Your task to perform on an android device: read, delete, or share a saved page in the chrome app Image 0: 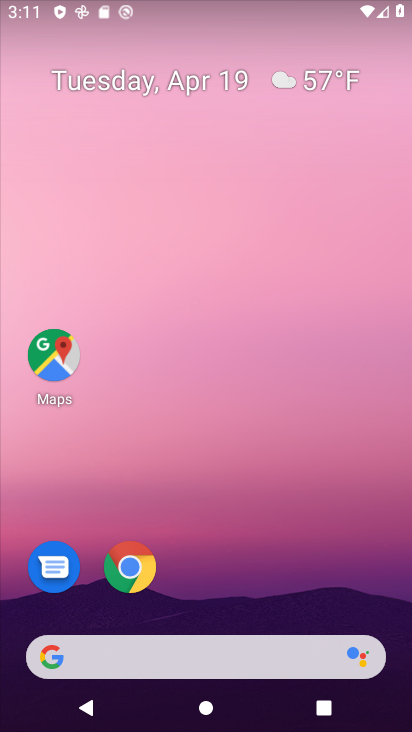
Step 0: drag from (356, 587) to (381, 122)
Your task to perform on an android device: read, delete, or share a saved page in the chrome app Image 1: 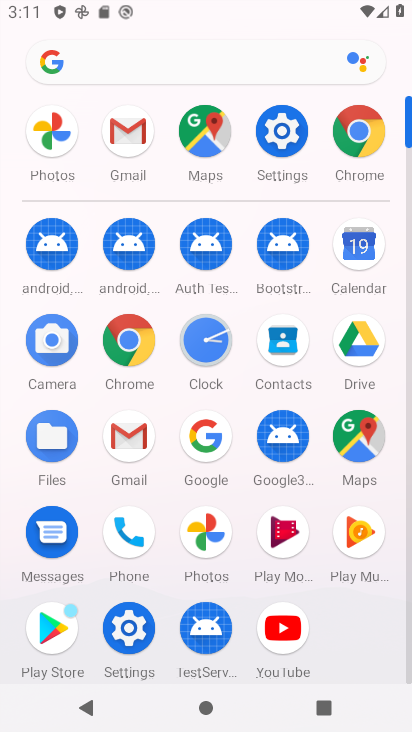
Step 1: click (353, 135)
Your task to perform on an android device: read, delete, or share a saved page in the chrome app Image 2: 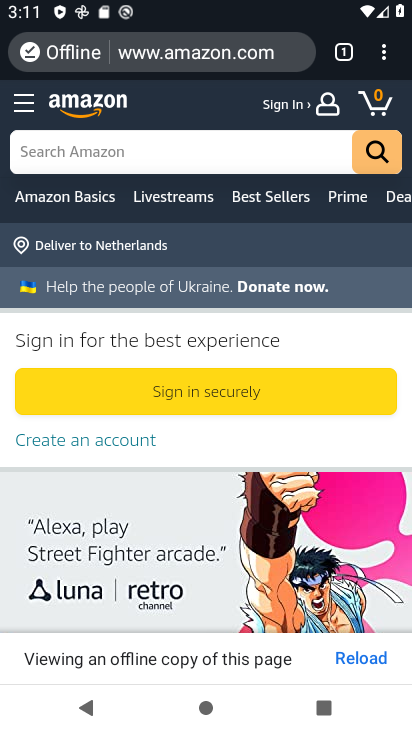
Step 2: click (385, 55)
Your task to perform on an android device: read, delete, or share a saved page in the chrome app Image 3: 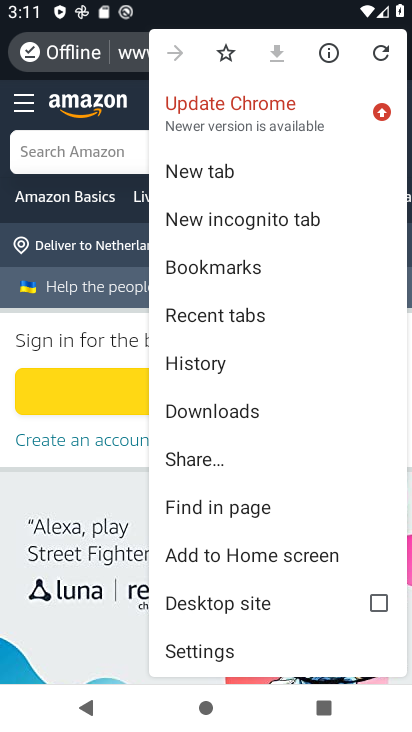
Step 3: drag from (343, 470) to (360, 317)
Your task to perform on an android device: read, delete, or share a saved page in the chrome app Image 4: 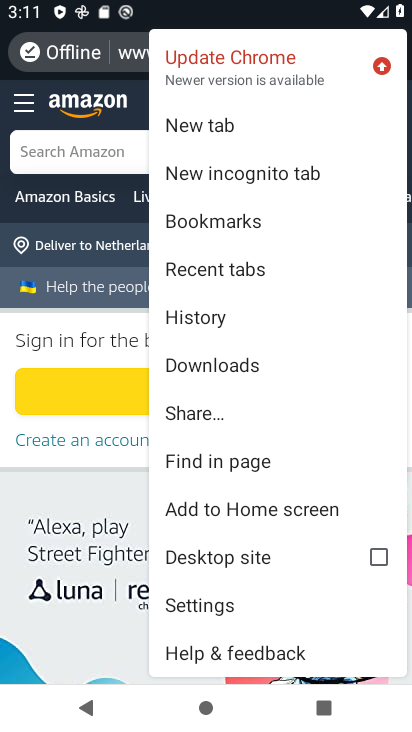
Step 4: drag from (330, 540) to (361, 258)
Your task to perform on an android device: read, delete, or share a saved page in the chrome app Image 5: 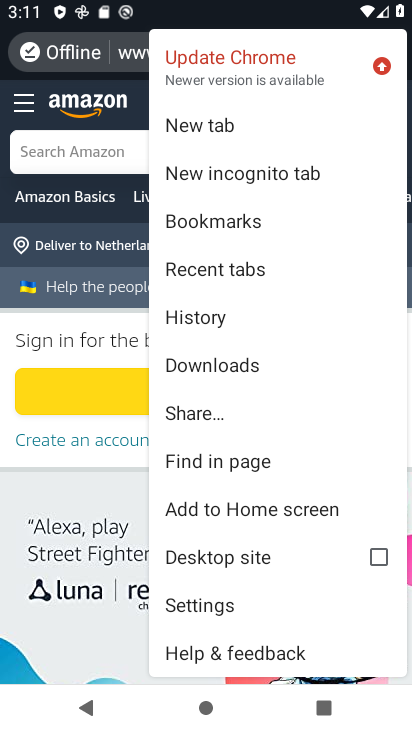
Step 5: click (218, 358)
Your task to perform on an android device: read, delete, or share a saved page in the chrome app Image 6: 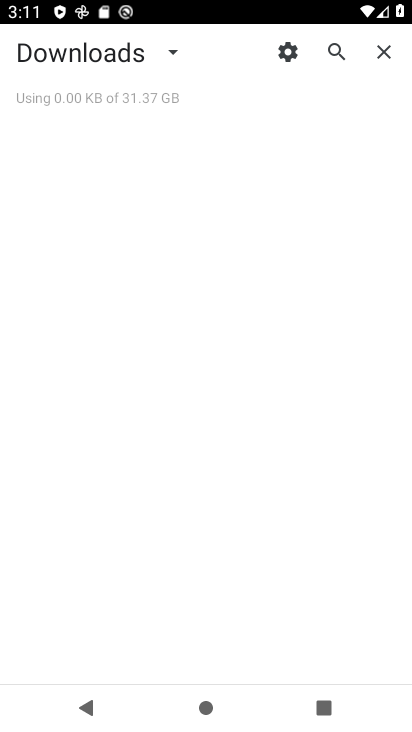
Step 6: click (172, 52)
Your task to perform on an android device: read, delete, or share a saved page in the chrome app Image 7: 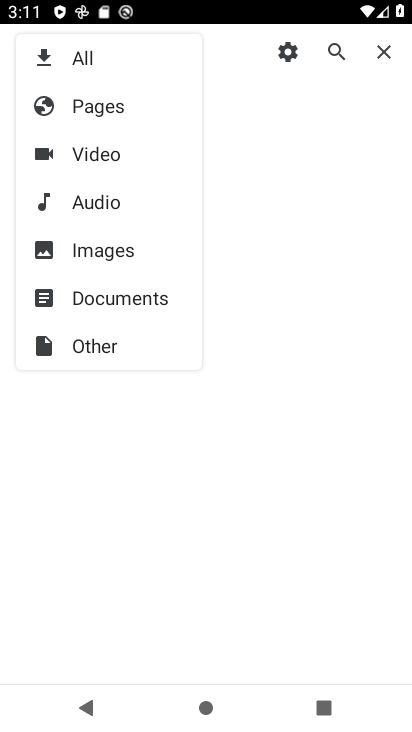
Step 7: click (93, 107)
Your task to perform on an android device: read, delete, or share a saved page in the chrome app Image 8: 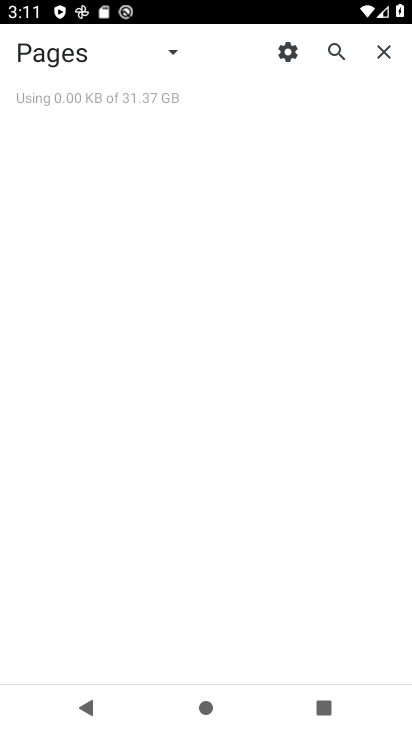
Step 8: task complete